Your task to perform on an android device: Go to network settings Image 0: 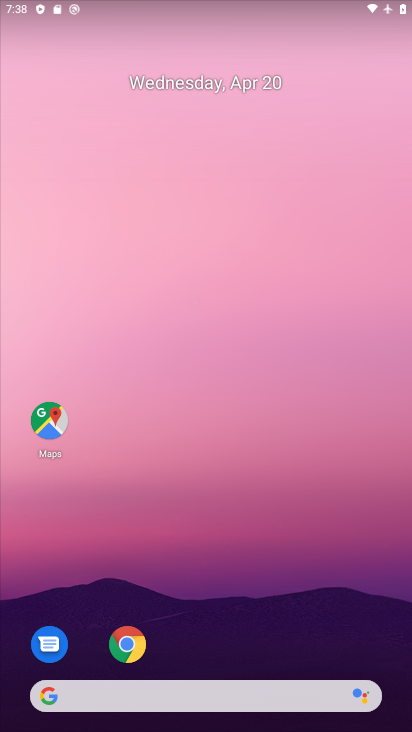
Step 0: drag from (311, 582) to (266, 95)
Your task to perform on an android device: Go to network settings Image 1: 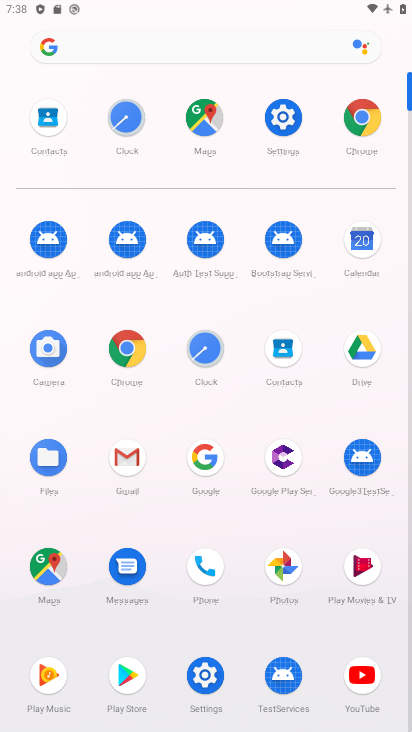
Step 1: click (285, 116)
Your task to perform on an android device: Go to network settings Image 2: 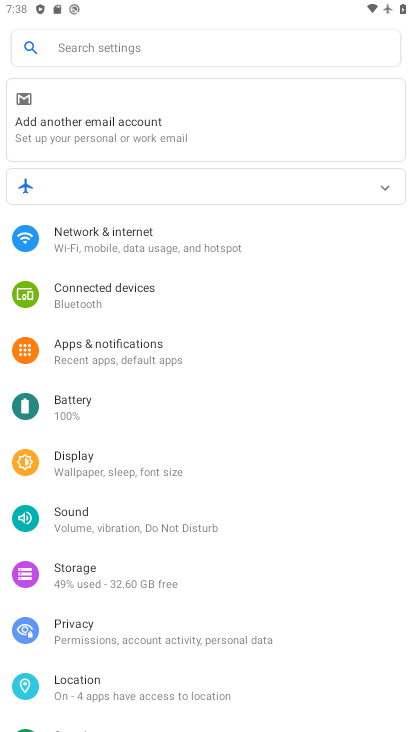
Step 2: click (164, 249)
Your task to perform on an android device: Go to network settings Image 3: 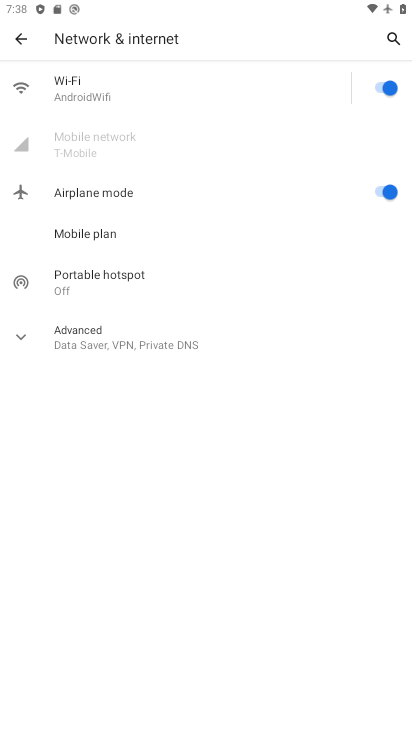
Step 3: click (151, 83)
Your task to perform on an android device: Go to network settings Image 4: 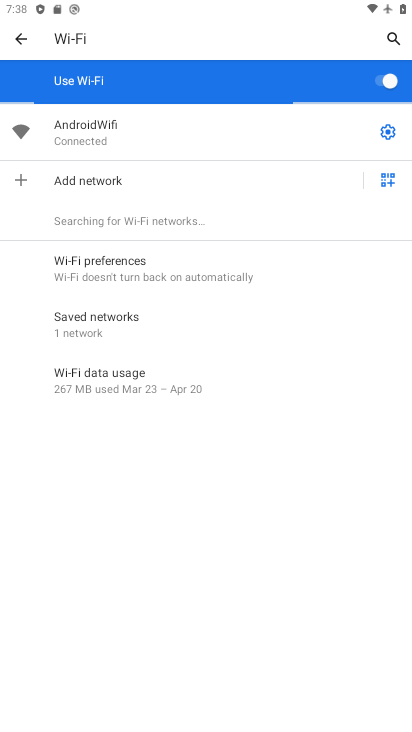
Step 4: task complete